Your task to perform on an android device: Search for Mexican restaurants on Maps Image 0: 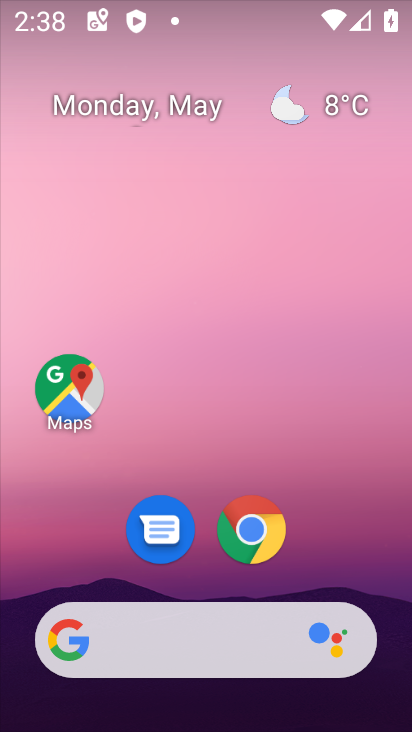
Step 0: click (68, 390)
Your task to perform on an android device: Search for Mexican restaurants on Maps Image 1: 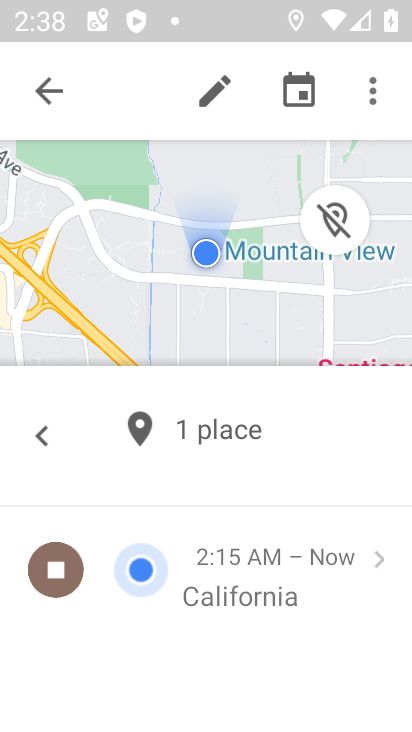
Step 1: click (61, 106)
Your task to perform on an android device: Search for Mexican restaurants on Maps Image 2: 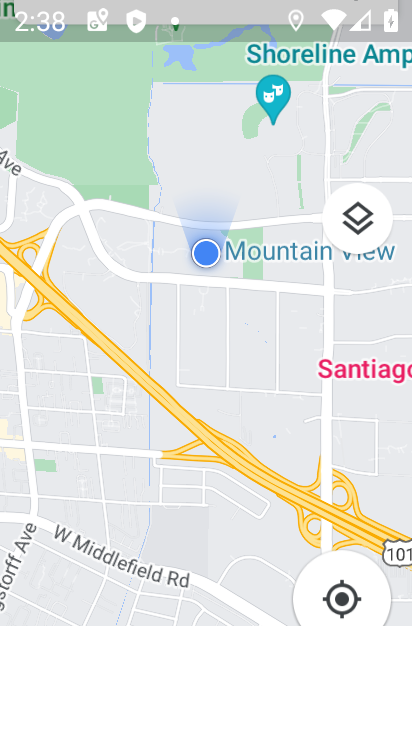
Step 2: click (61, 106)
Your task to perform on an android device: Search for Mexican restaurants on Maps Image 3: 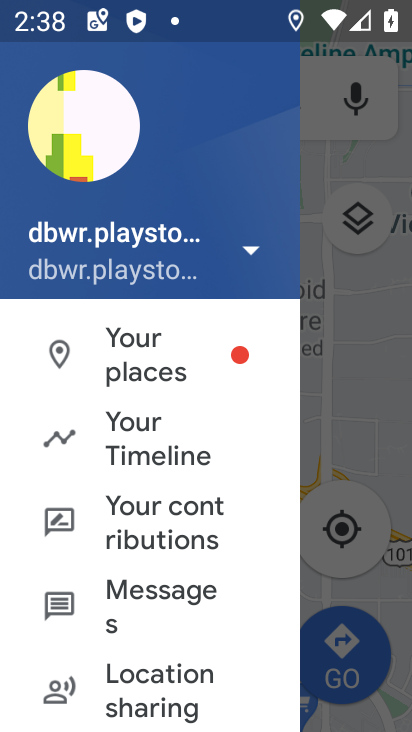
Step 3: click (323, 107)
Your task to perform on an android device: Search for Mexican restaurants on Maps Image 4: 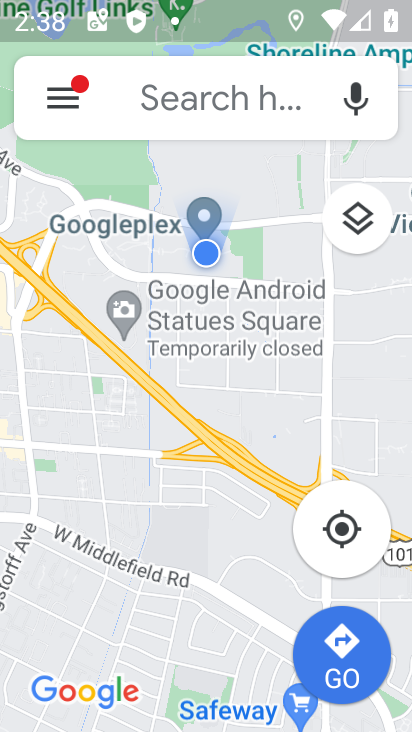
Step 4: click (248, 109)
Your task to perform on an android device: Search for Mexican restaurants on Maps Image 5: 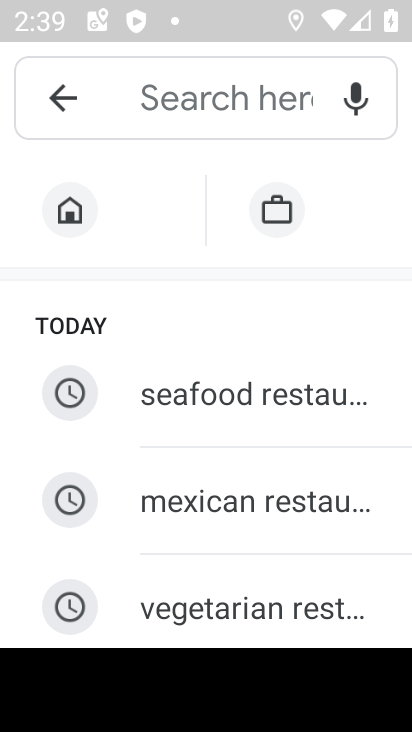
Step 5: type "Mexican restaurants "
Your task to perform on an android device: Search for Mexican restaurants on Maps Image 6: 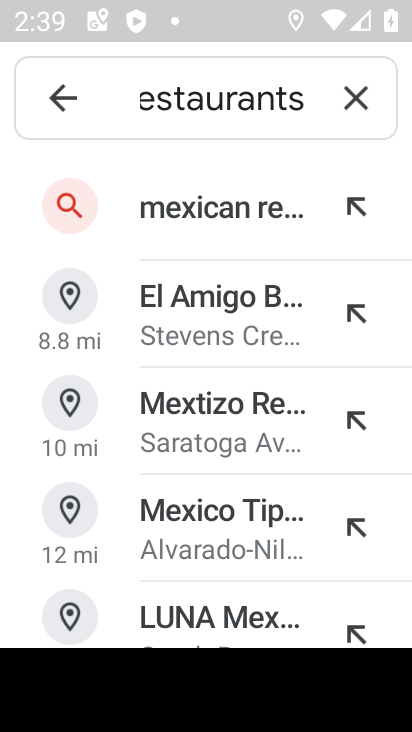
Step 6: click (130, 216)
Your task to perform on an android device: Search for Mexican restaurants on Maps Image 7: 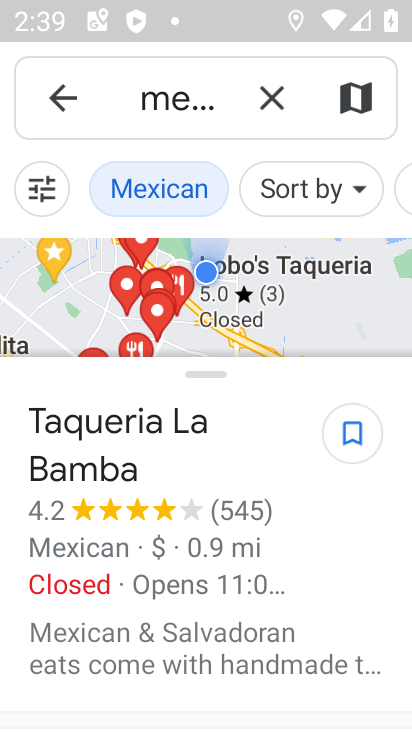
Step 7: task complete